Your task to perform on an android device: install app "PlayWell" Image 0: 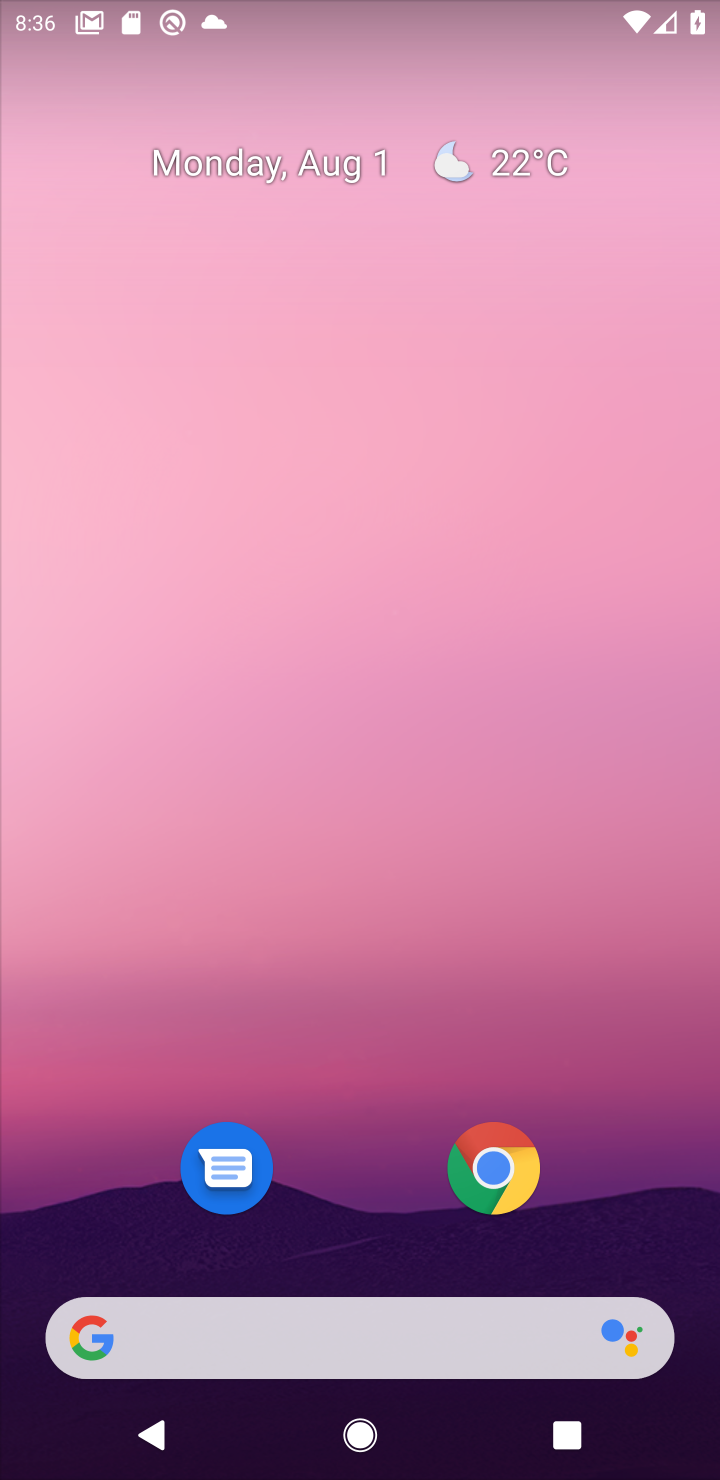
Step 0: drag from (374, 1207) to (369, 27)
Your task to perform on an android device: install app "PlayWell" Image 1: 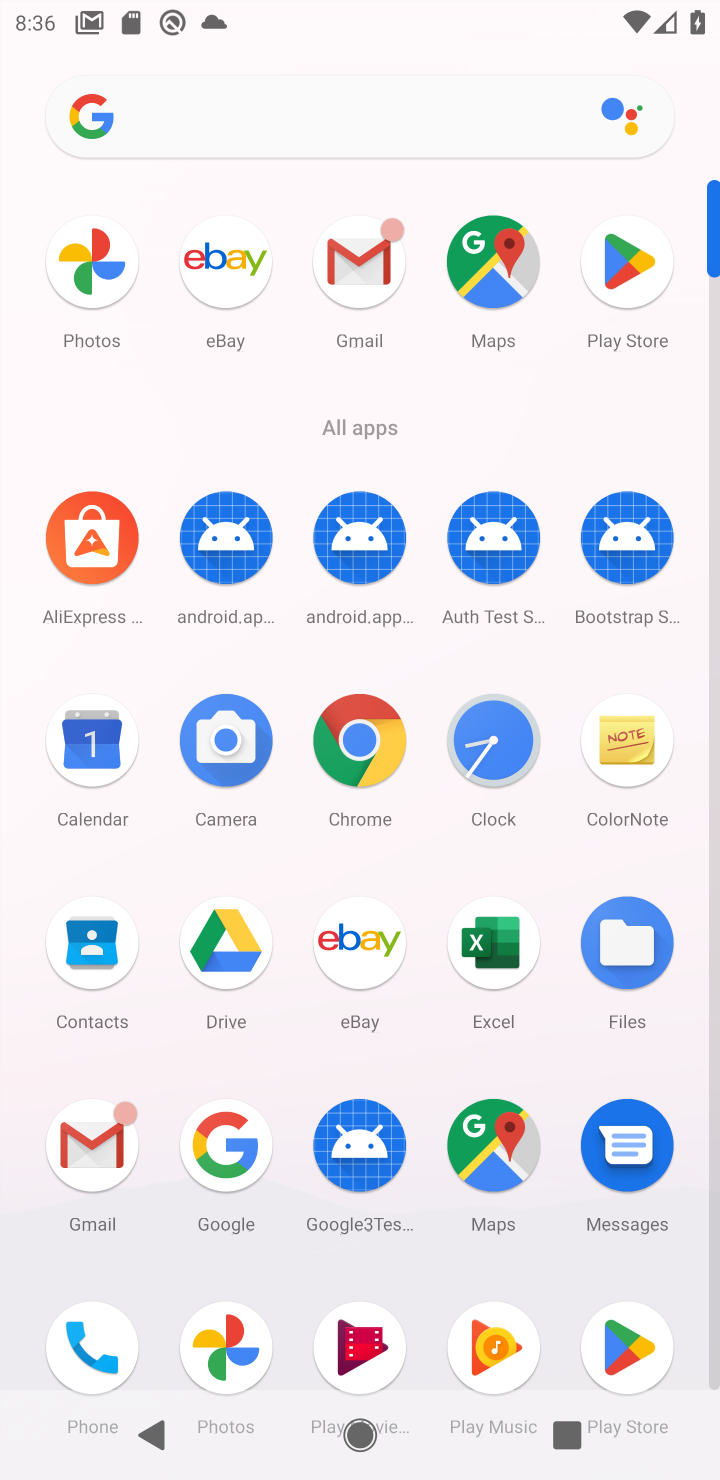
Step 1: click (650, 304)
Your task to perform on an android device: install app "PlayWell" Image 2: 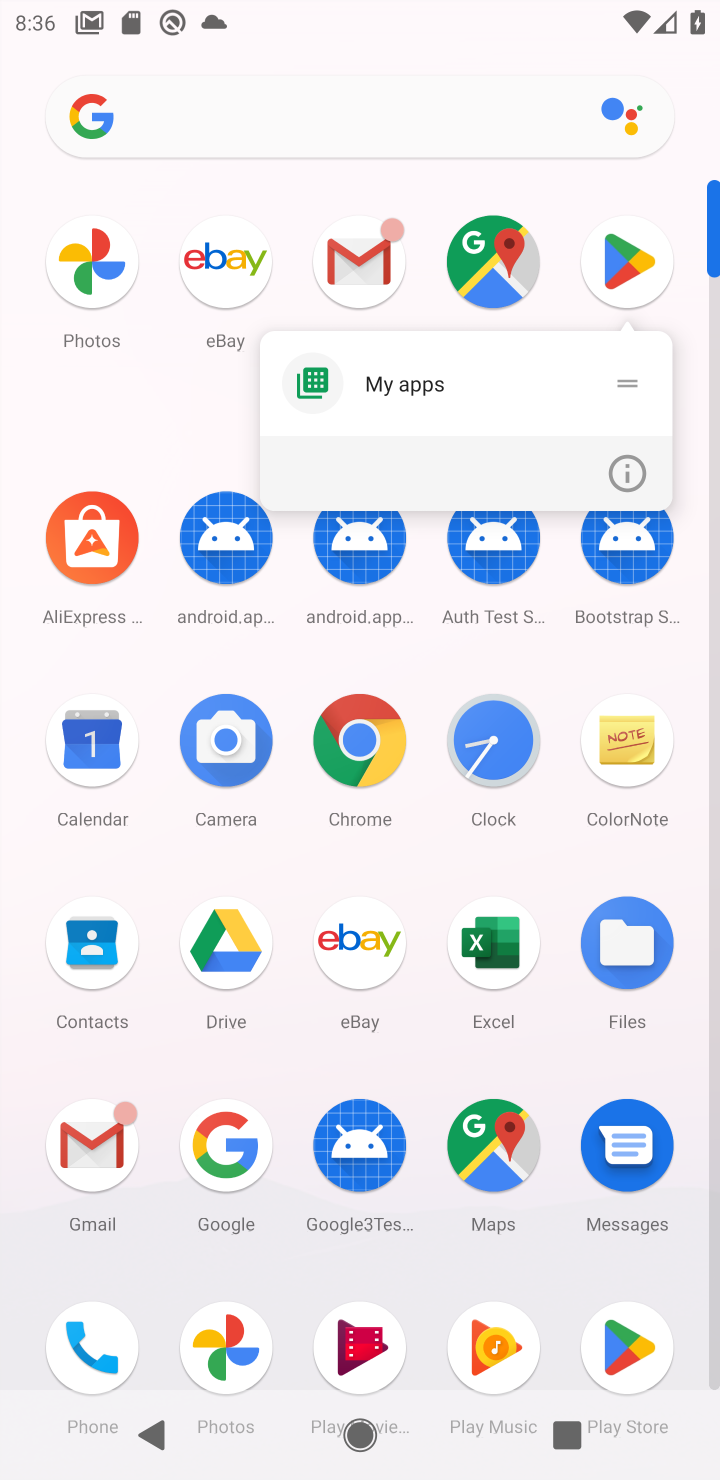
Step 2: click (647, 302)
Your task to perform on an android device: install app "PlayWell" Image 3: 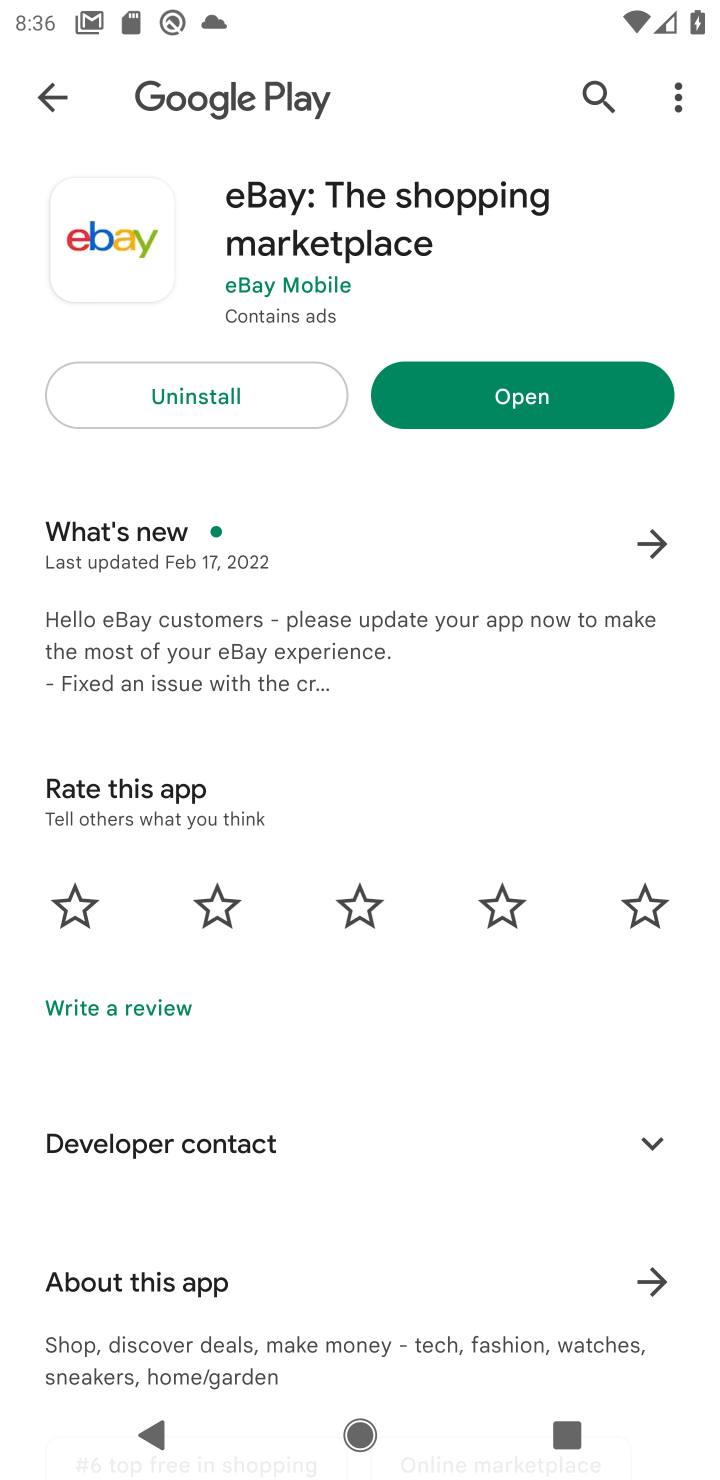
Step 3: click (70, 100)
Your task to perform on an android device: install app "PlayWell" Image 4: 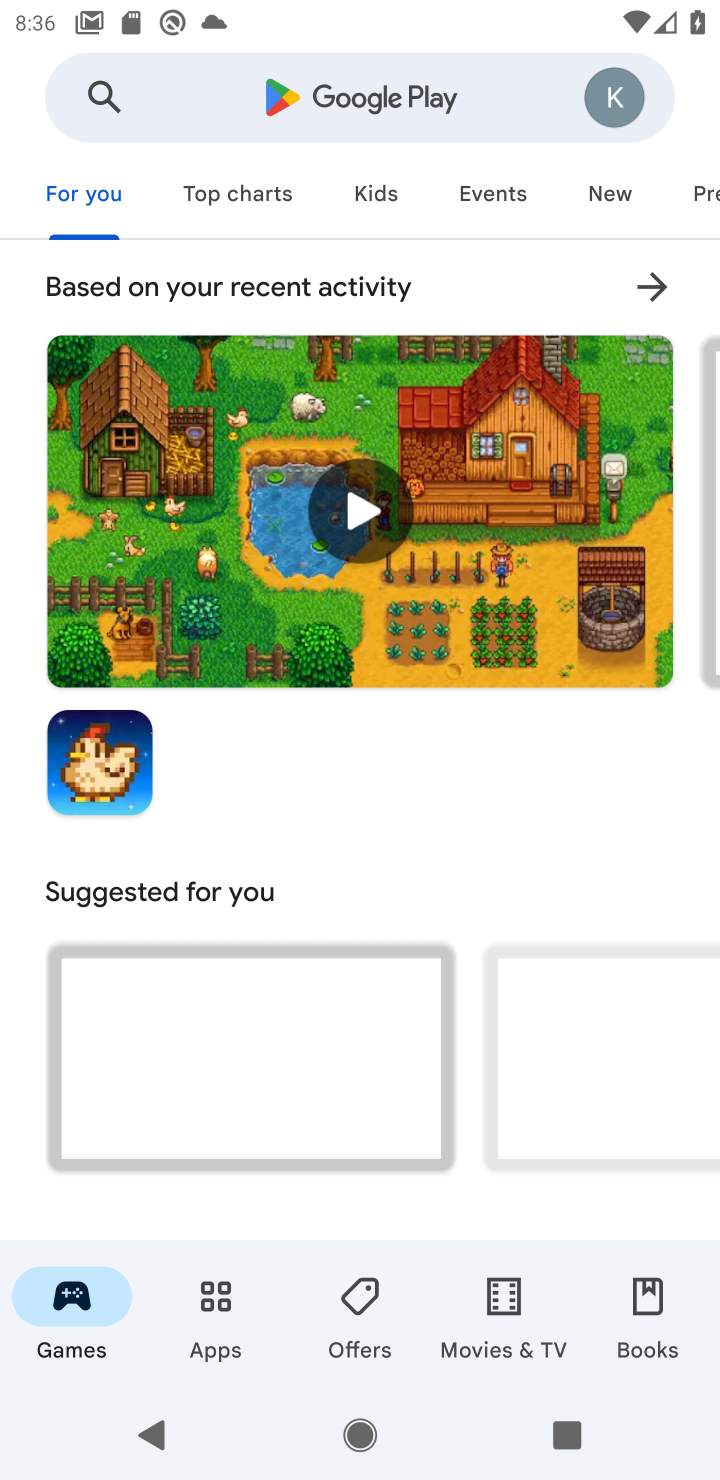
Step 4: click (226, 96)
Your task to perform on an android device: install app "PlayWell" Image 5: 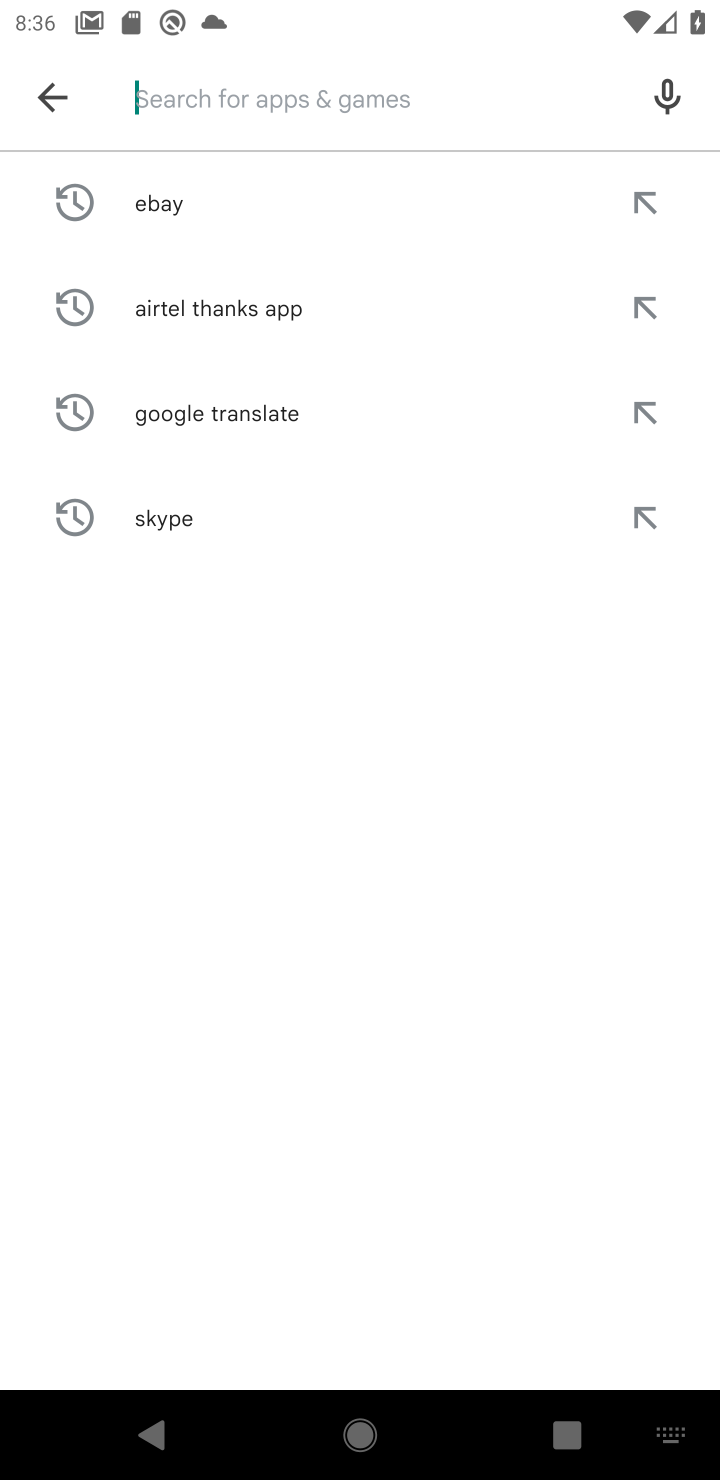
Step 5: type ""
Your task to perform on an android device: install app "PlayWell" Image 6: 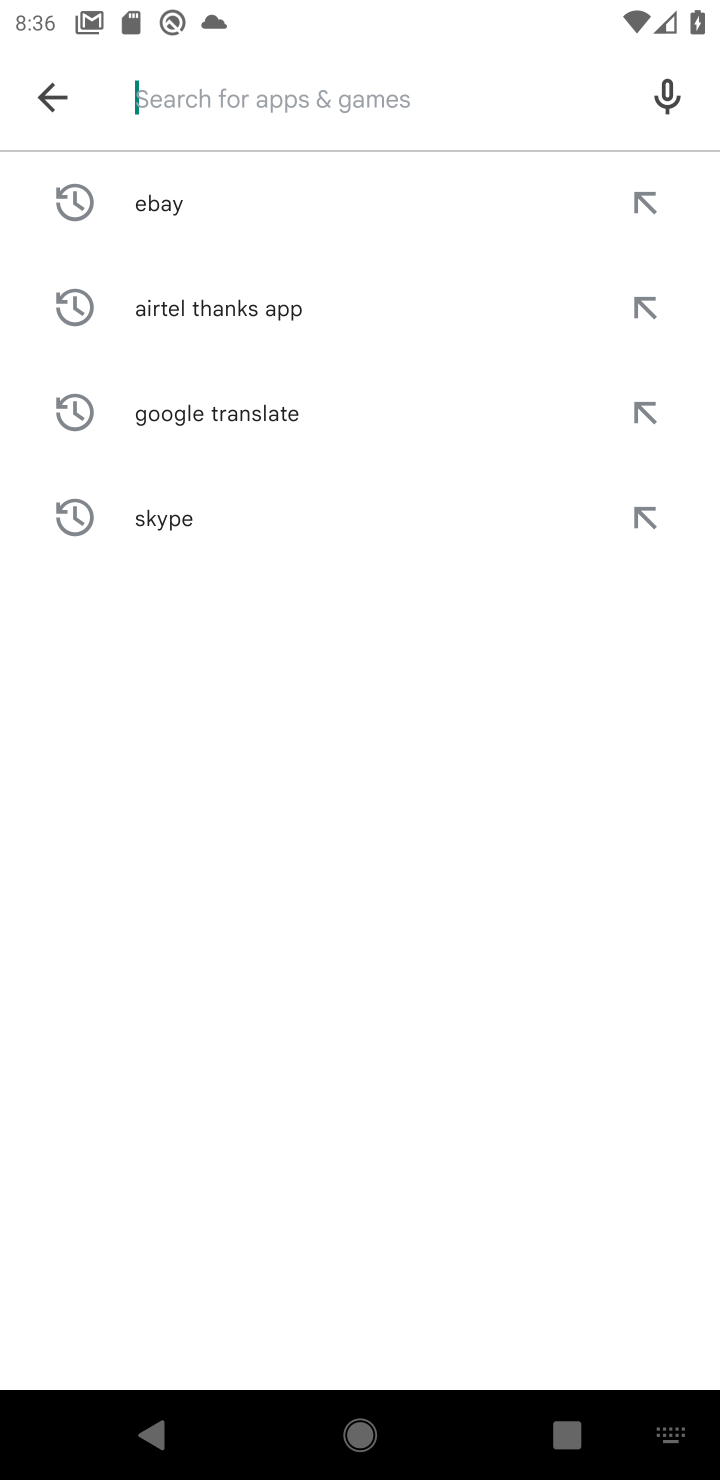
Step 6: type "PLaywell"
Your task to perform on an android device: install app "PlayWell" Image 7: 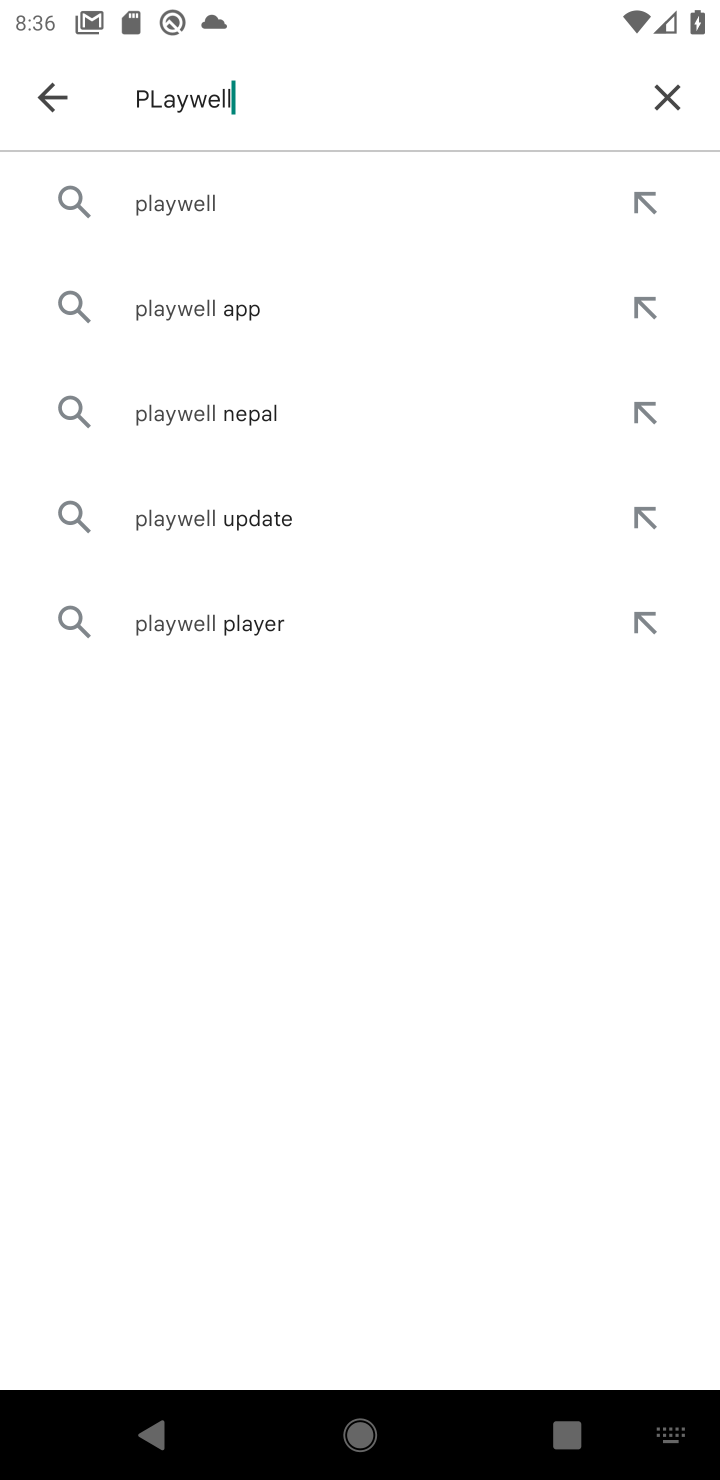
Step 7: click (246, 202)
Your task to perform on an android device: install app "PlayWell" Image 8: 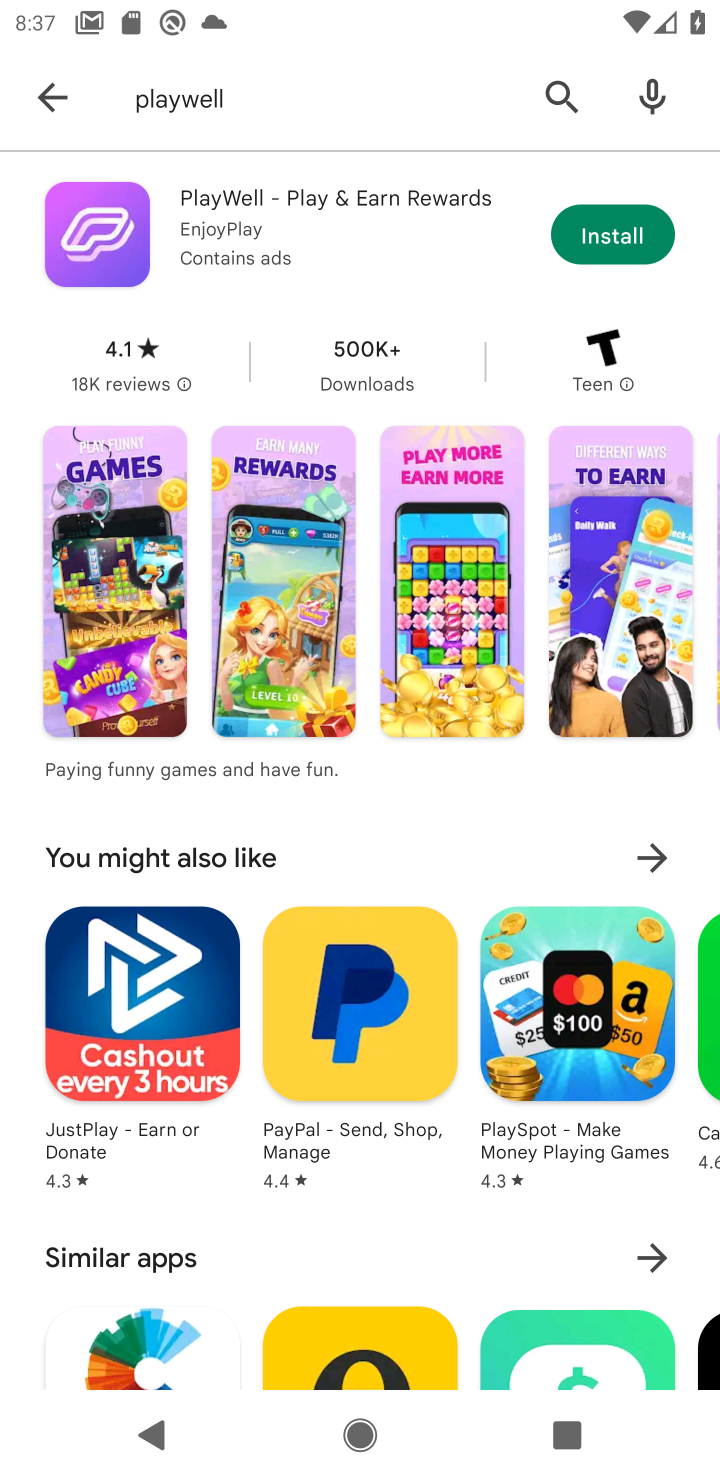
Step 8: click (634, 221)
Your task to perform on an android device: install app "PlayWell" Image 9: 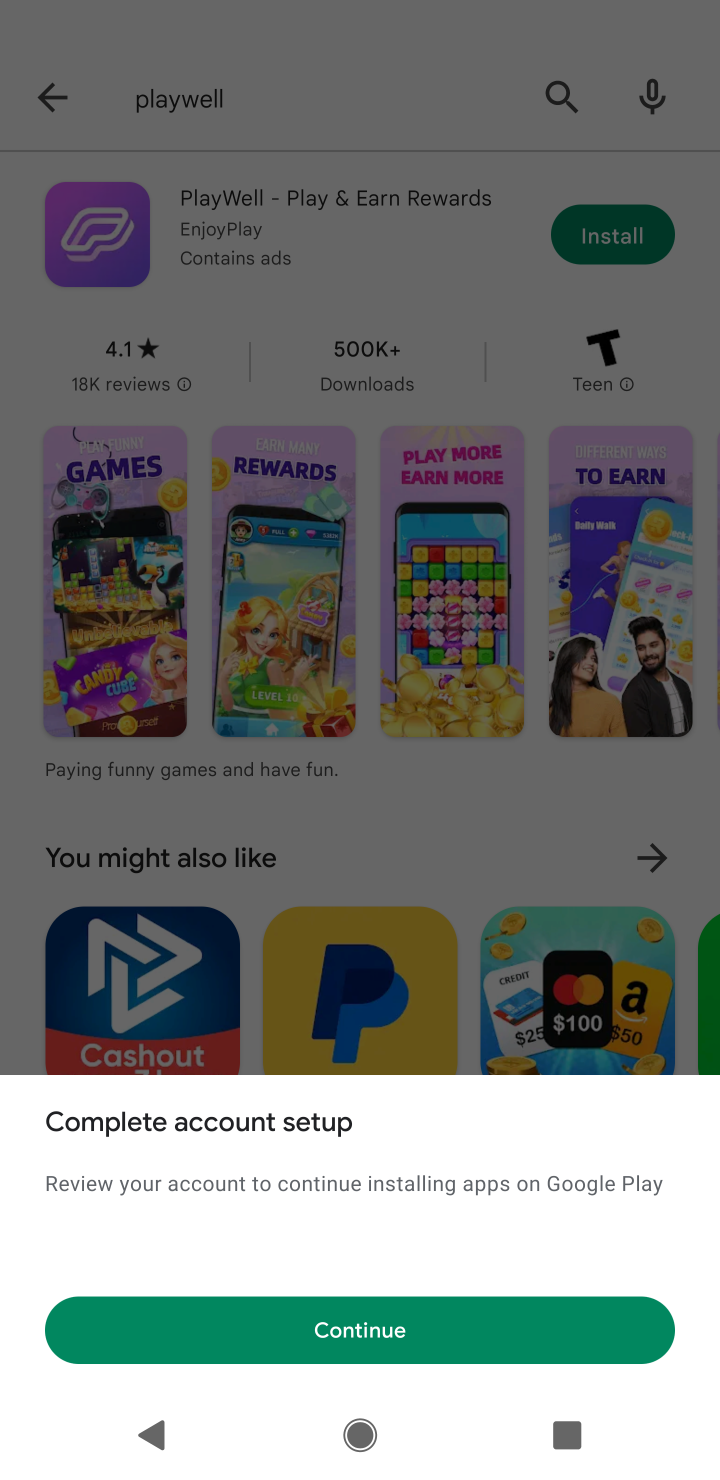
Step 9: click (321, 1319)
Your task to perform on an android device: install app "PlayWell" Image 10: 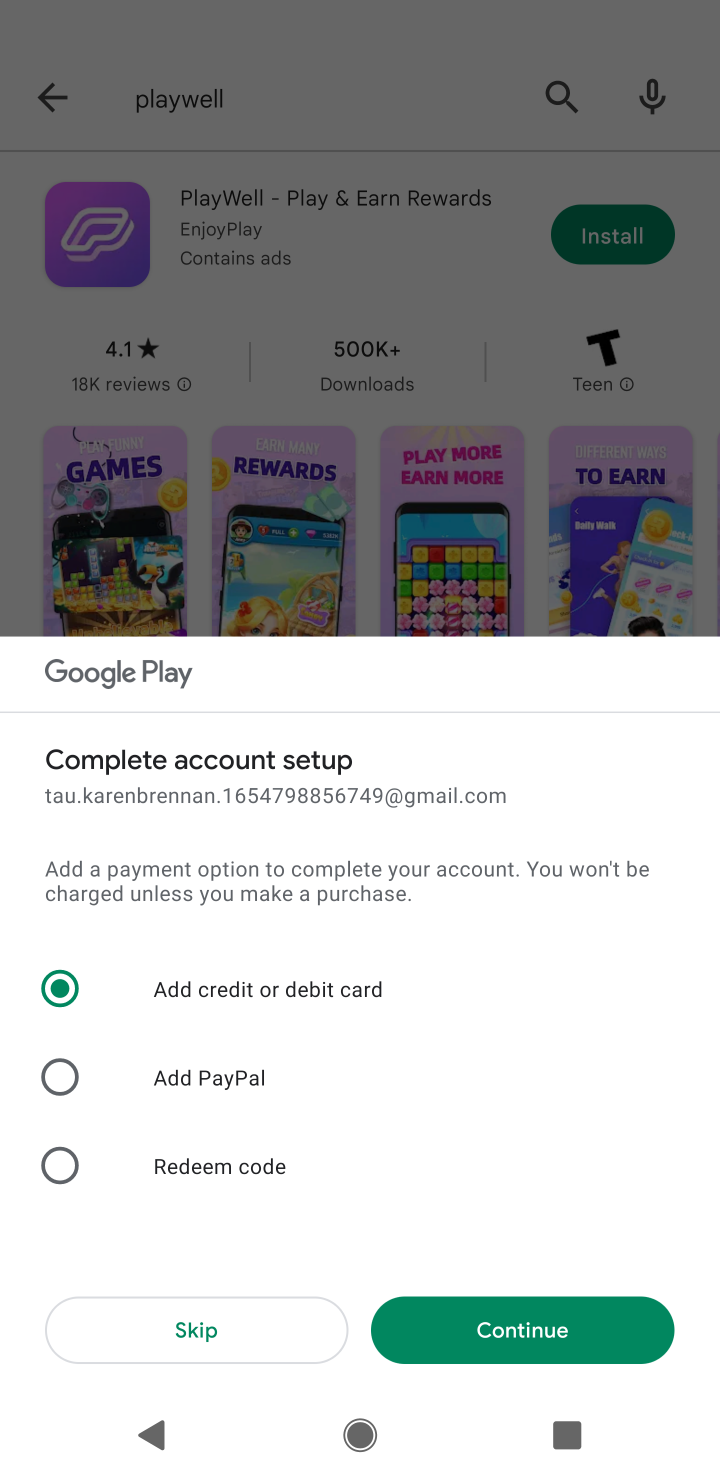
Step 10: click (215, 1331)
Your task to perform on an android device: install app "PlayWell" Image 11: 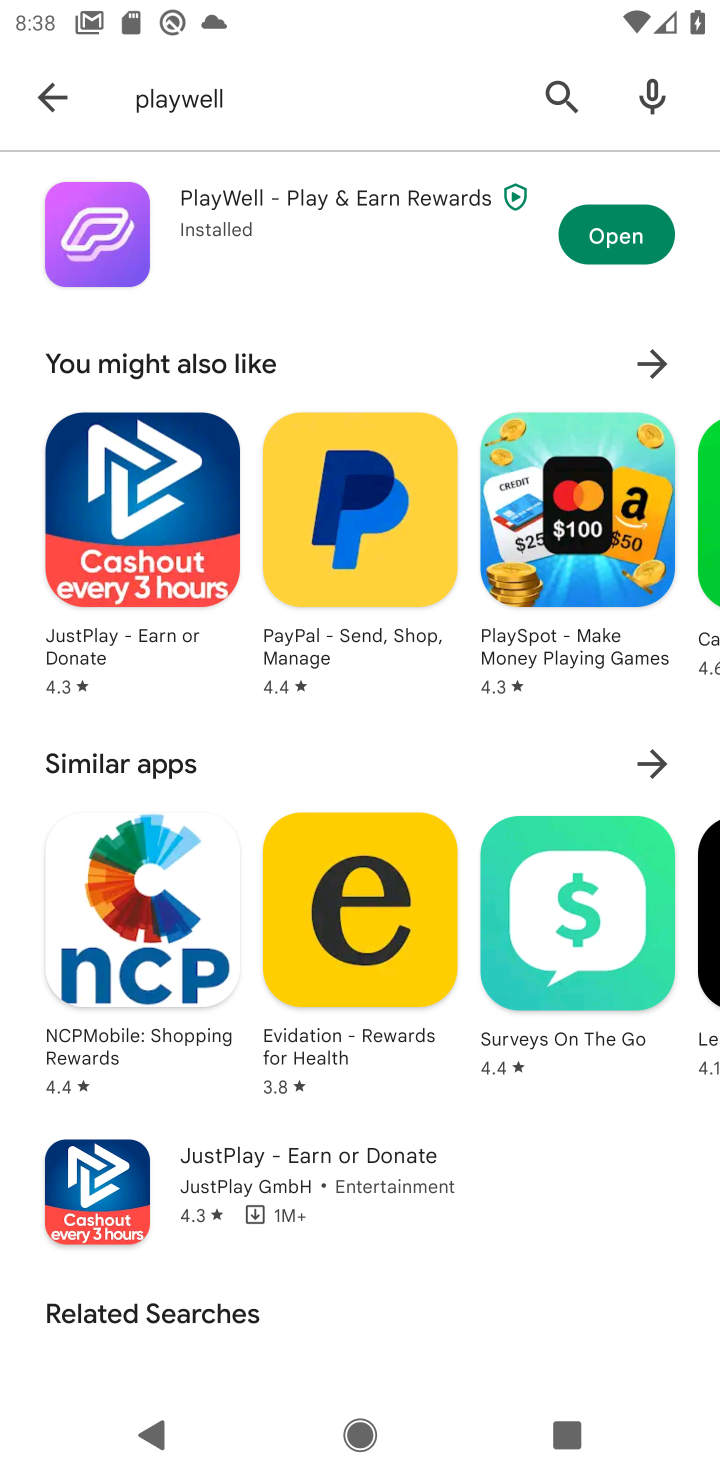
Step 11: task complete